Your task to perform on an android device: toggle show notifications on the lock screen Image 0: 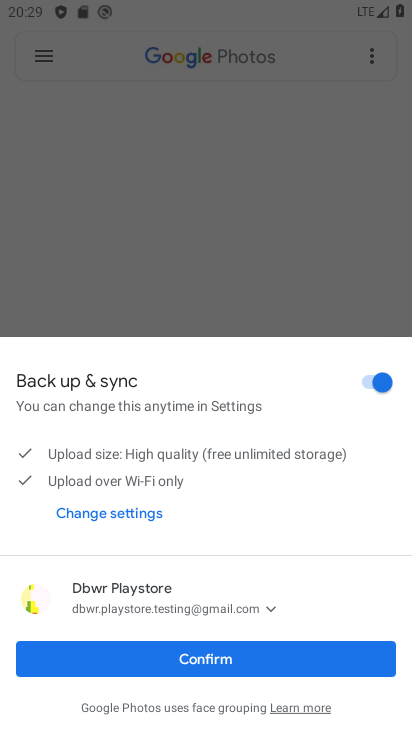
Step 0: press home button
Your task to perform on an android device: toggle show notifications on the lock screen Image 1: 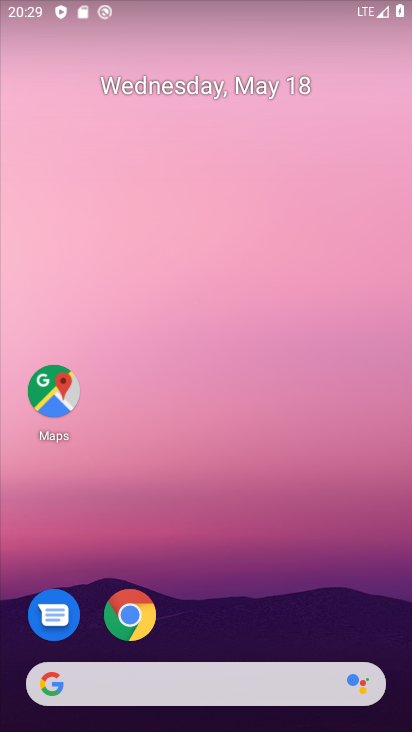
Step 1: drag from (207, 684) to (252, 97)
Your task to perform on an android device: toggle show notifications on the lock screen Image 2: 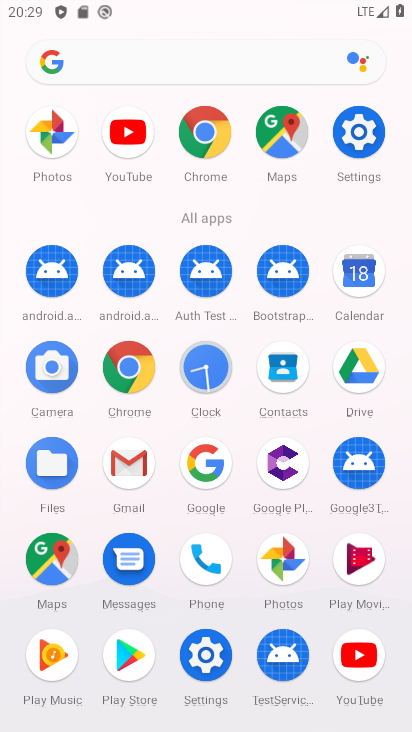
Step 2: click (355, 127)
Your task to perform on an android device: toggle show notifications on the lock screen Image 3: 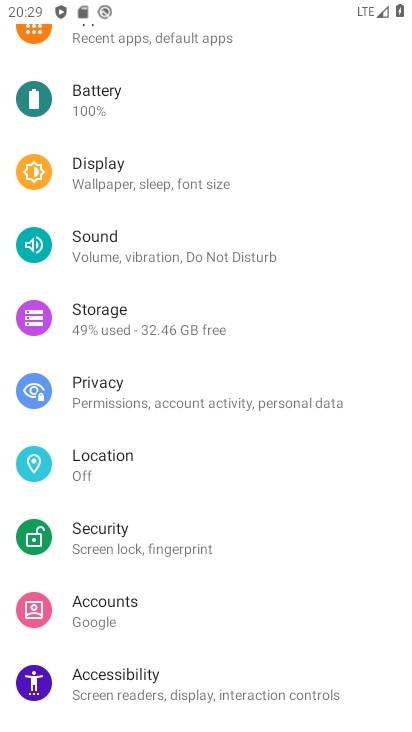
Step 3: drag from (113, 120) to (115, 385)
Your task to perform on an android device: toggle show notifications on the lock screen Image 4: 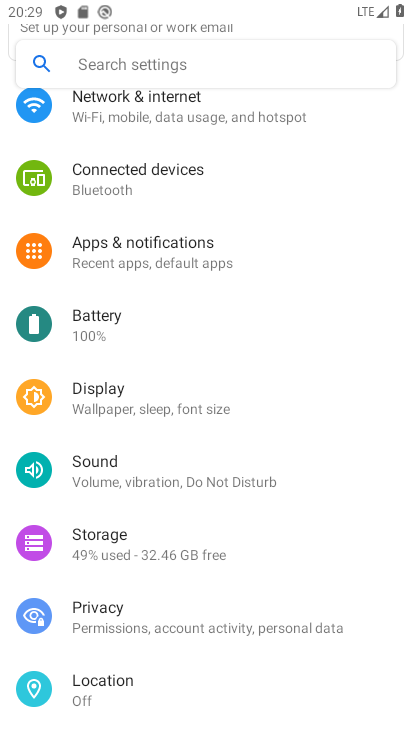
Step 4: click (150, 237)
Your task to perform on an android device: toggle show notifications on the lock screen Image 5: 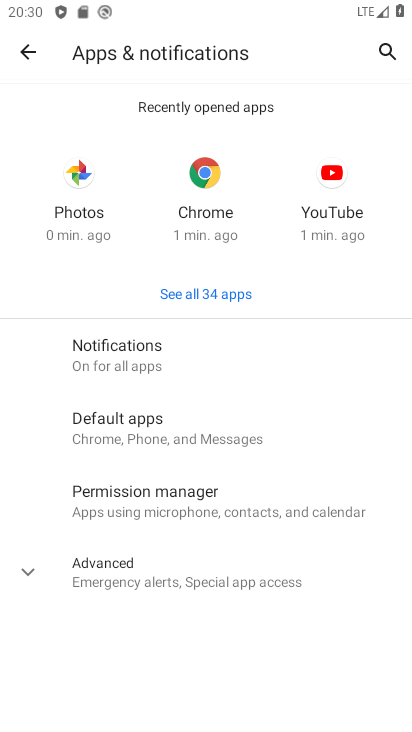
Step 5: click (154, 348)
Your task to perform on an android device: toggle show notifications on the lock screen Image 6: 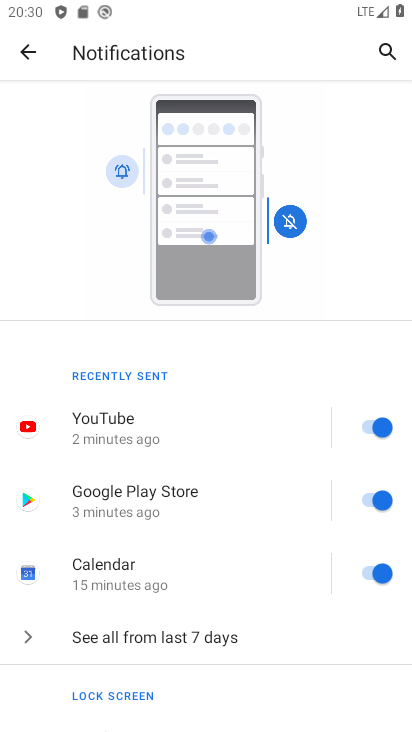
Step 6: drag from (142, 681) to (151, 216)
Your task to perform on an android device: toggle show notifications on the lock screen Image 7: 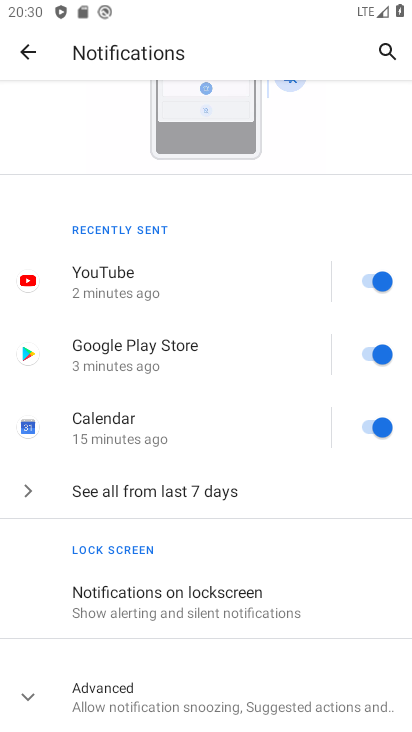
Step 7: click (154, 593)
Your task to perform on an android device: toggle show notifications on the lock screen Image 8: 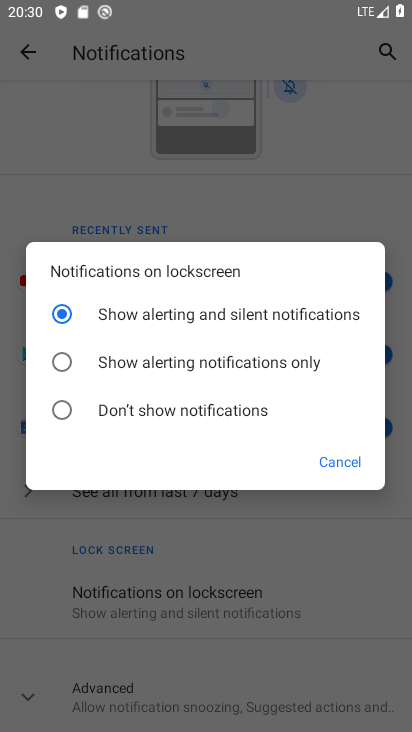
Step 8: click (103, 368)
Your task to perform on an android device: toggle show notifications on the lock screen Image 9: 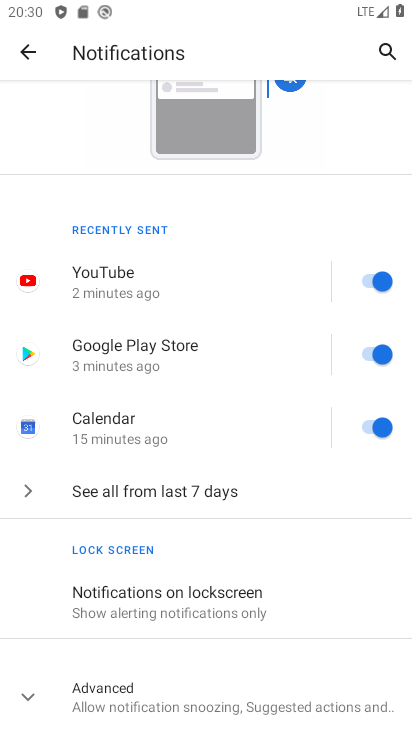
Step 9: task complete